Your task to perform on an android device: change the clock display to digital Image 0: 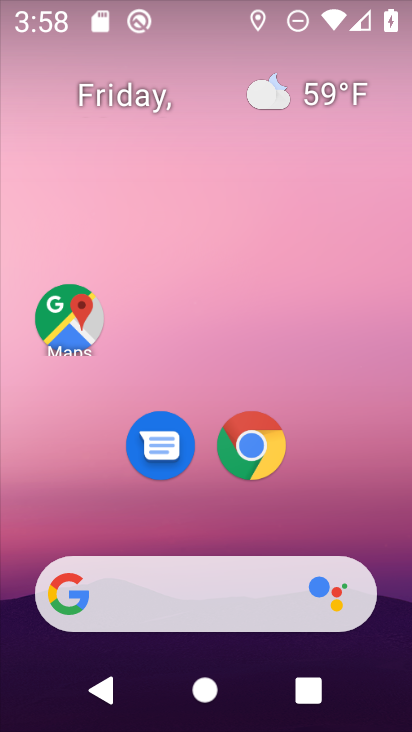
Step 0: drag from (391, 602) to (384, 179)
Your task to perform on an android device: change the clock display to digital Image 1: 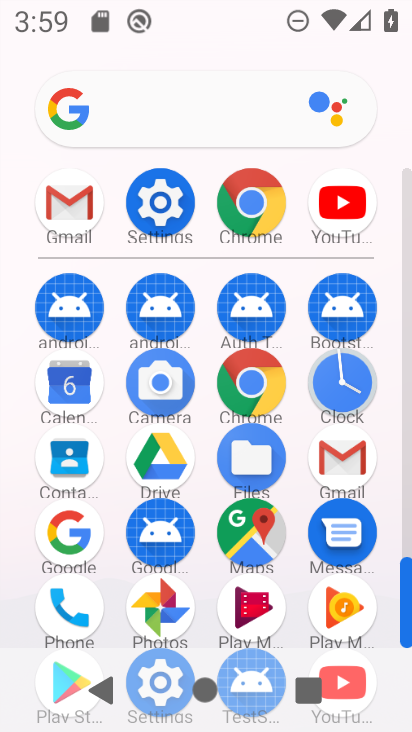
Step 1: click (338, 380)
Your task to perform on an android device: change the clock display to digital Image 2: 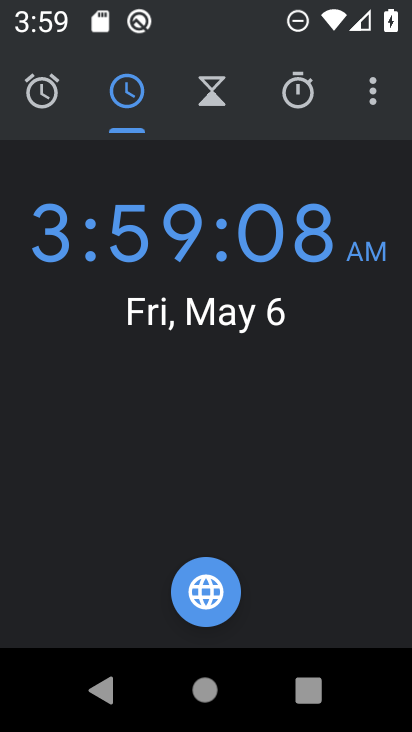
Step 2: click (370, 101)
Your task to perform on an android device: change the clock display to digital Image 3: 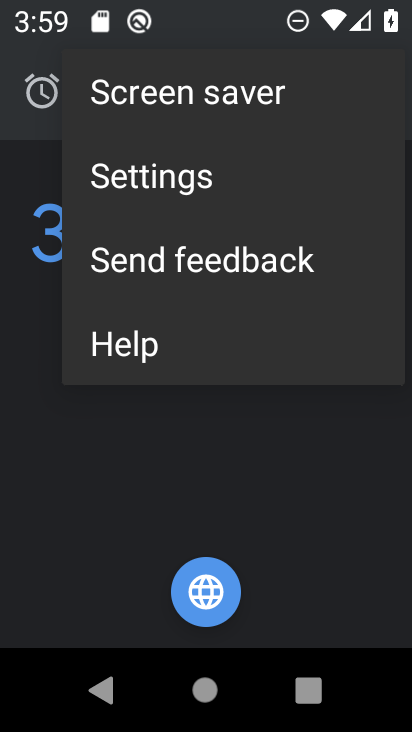
Step 3: click (155, 169)
Your task to perform on an android device: change the clock display to digital Image 4: 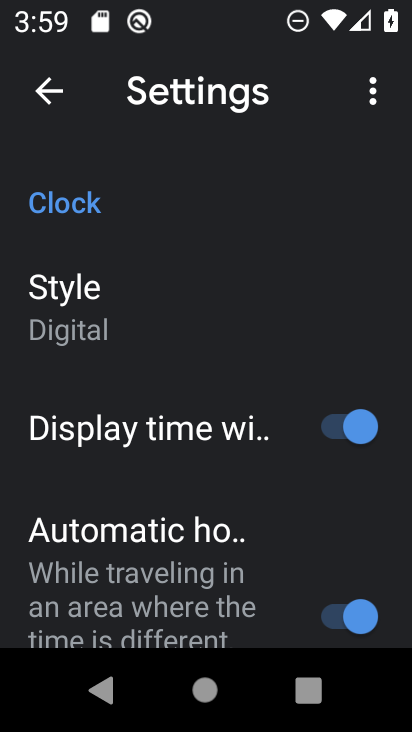
Step 4: task complete